Your task to perform on an android device: add a label to a message in the gmail app Image 0: 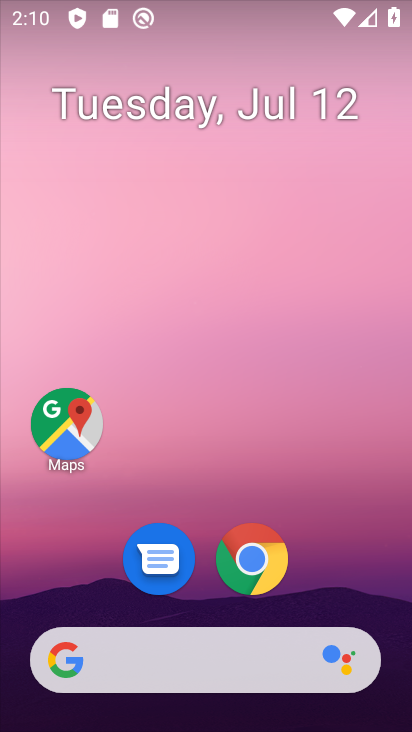
Step 0: drag from (368, 561) to (403, 187)
Your task to perform on an android device: add a label to a message in the gmail app Image 1: 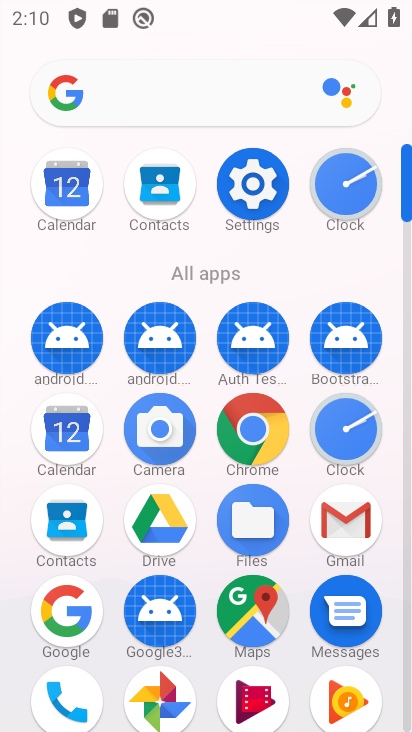
Step 1: click (347, 528)
Your task to perform on an android device: add a label to a message in the gmail app Image 2: 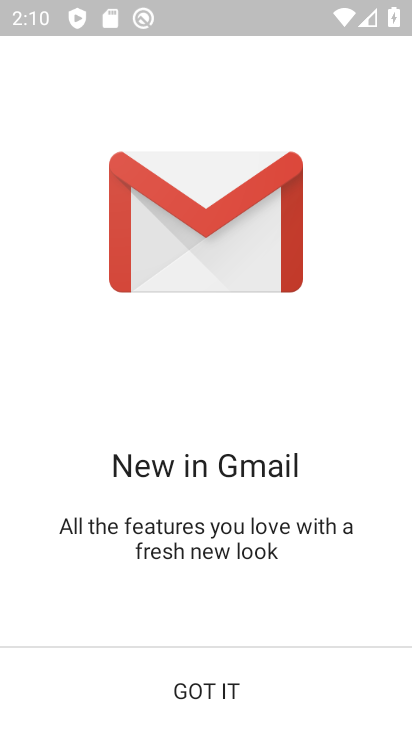
Step 2: click (276, 686)
Your task to perform on an android device: add a label to a message in the gmail app Image 3: 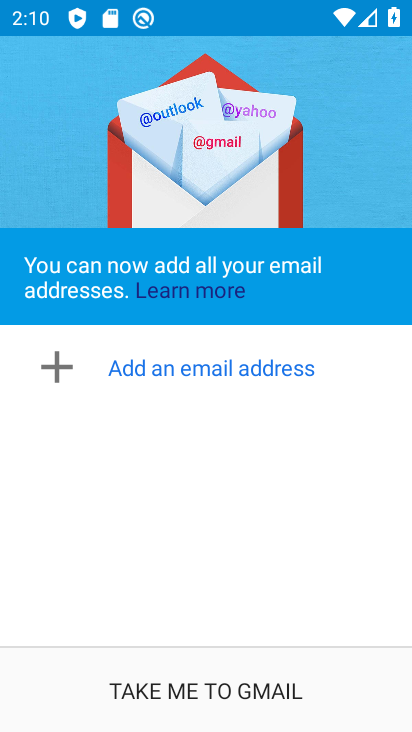
Step 3: click (276, 686)
Your task to perform on an android device: add a label to a message in the gmail app Image 4: 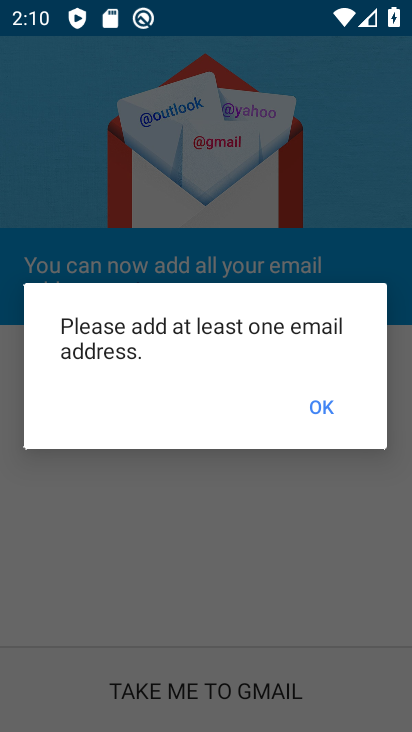
Step 4: task complete